Your task to perform on an android device: Open CNN.com Image 0: 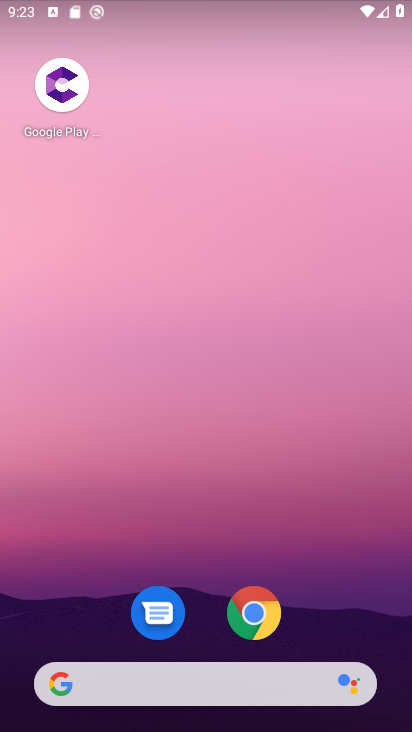
Step 0: drag from (170, 662) to (320, 38)
Your task to perform on an android device: Open CNN.com Image 1: 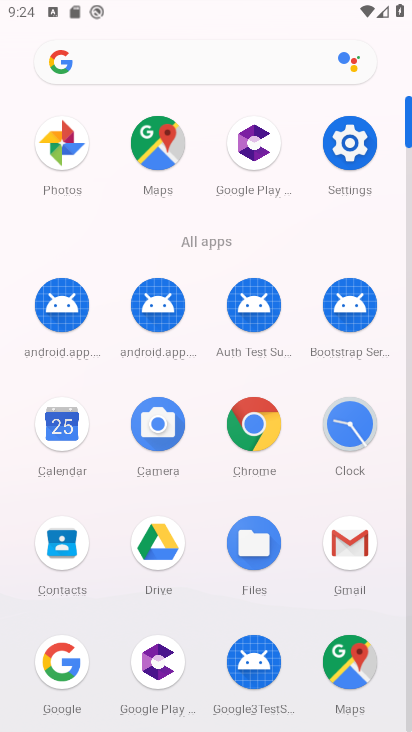
Step 1: click (266, 426)
Your task to perform on an android device: Open CNN.com Image 2: 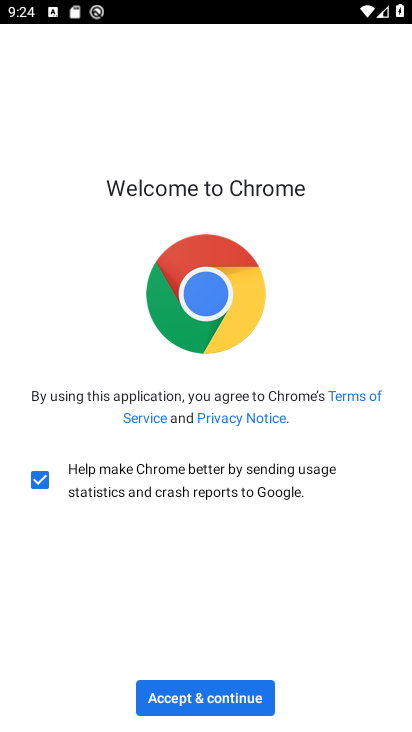
Step 2: click (218, 698)
Your task to perform on an android device: Open CNN.com Image 3: 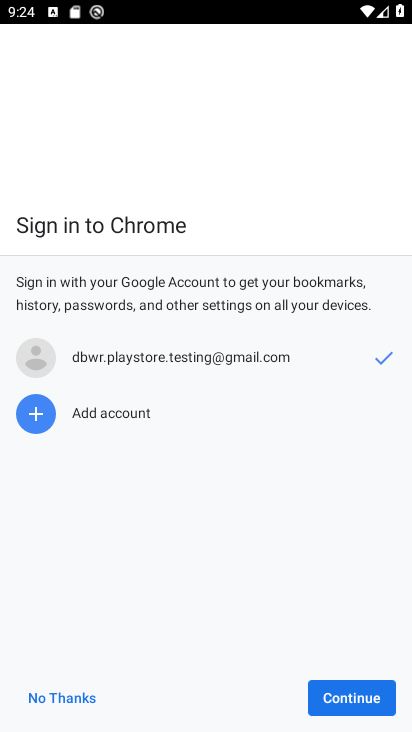
Step 3: click (80, 698)
Your task to perform on an android device: Open CNN.com Image 4: 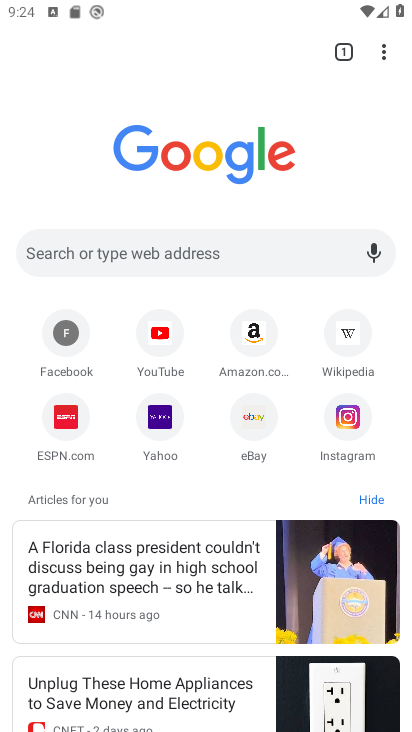
Step 4: click (138, 250)
Your task to perform on an android device: Open CNN.com Image 5: 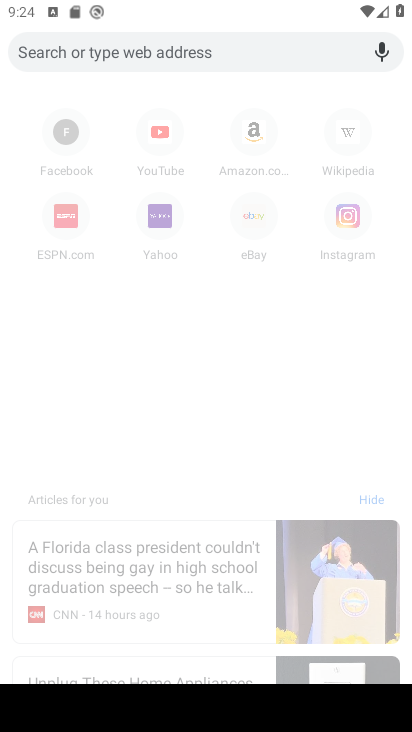
Step 5: type "cnn.com"
Your task to perform on an android device: Open CNN.com Image 6: 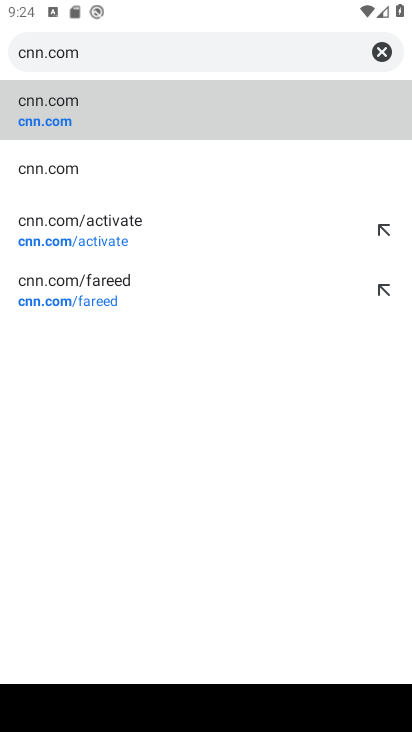
Step 6: click (59, 105)
Your task to perform on an android device: Open CNN.com Image 7: 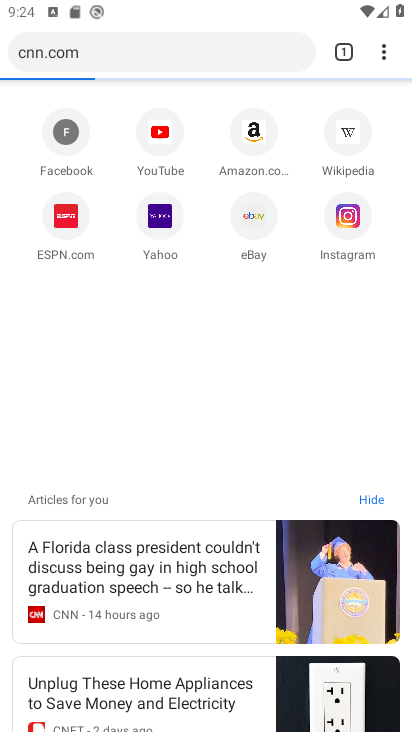
Step 7: task complete